Your task to perform on an android device: find snoozed emails in the gmail app Image 0: 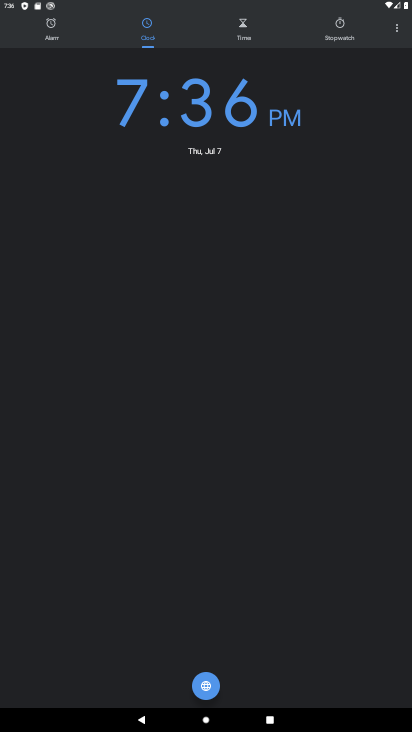
Step 0: press home button
Your task to perform on an android device: find snoozed emails in the gmail app Image 1: 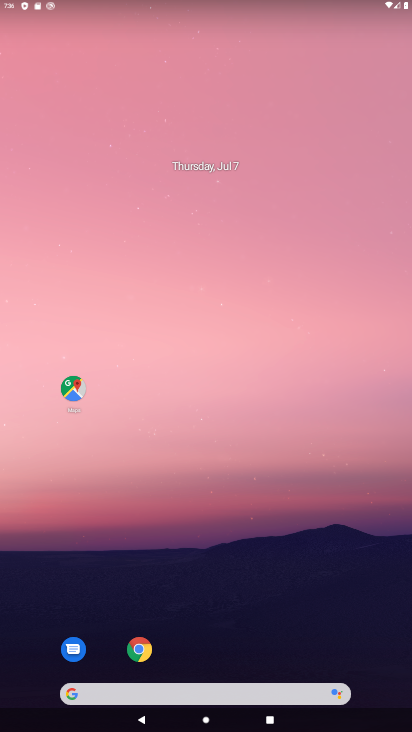
Step 1: drag from (218, 661) to (270, 126)
Your task to perform on an android device: find snoozed emails in the gmail app Image 2: 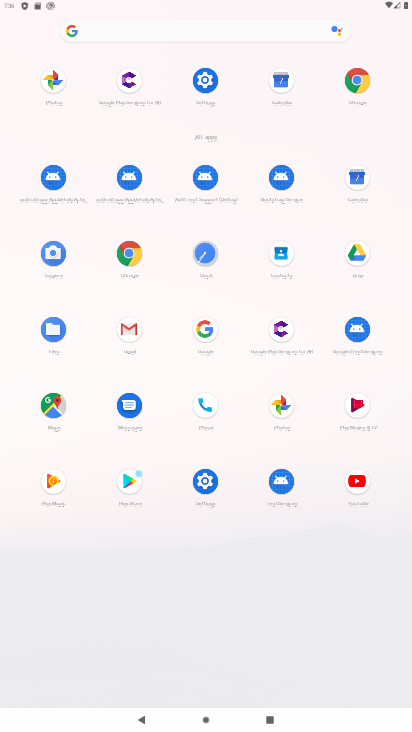
Step 2: click (125, 326)
Your task to perform on an android device: find snoozed emails in the gmail app Image 3: 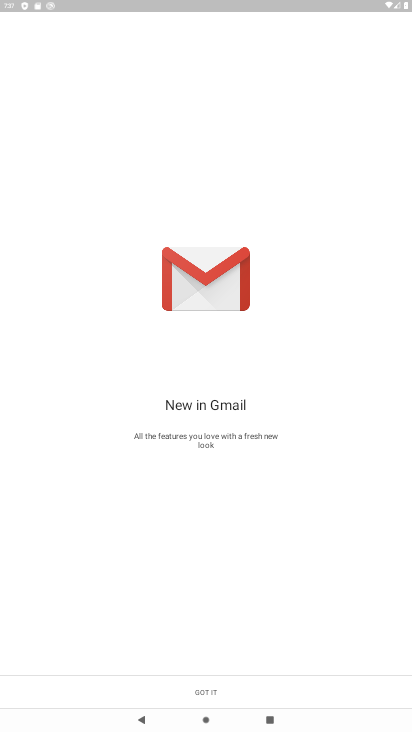
Step 3: click (203, 685)
Your task to perform on an android device: find snoozed emails in the gmail app Image 4: 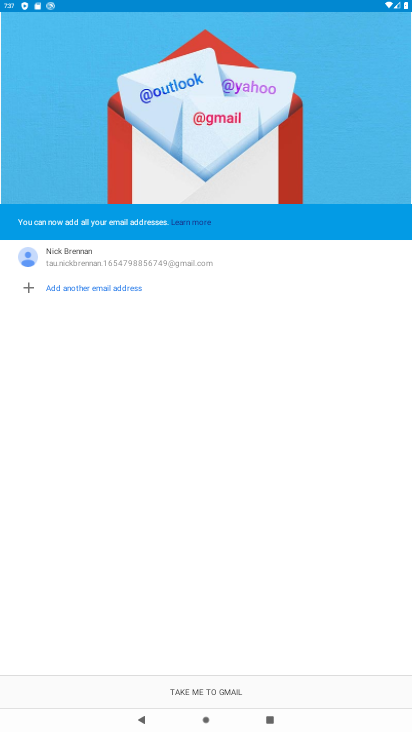
Step 4: click (203, 685)
Your task to perform on an android device: find snoozed emails in the gmail app Image 5: 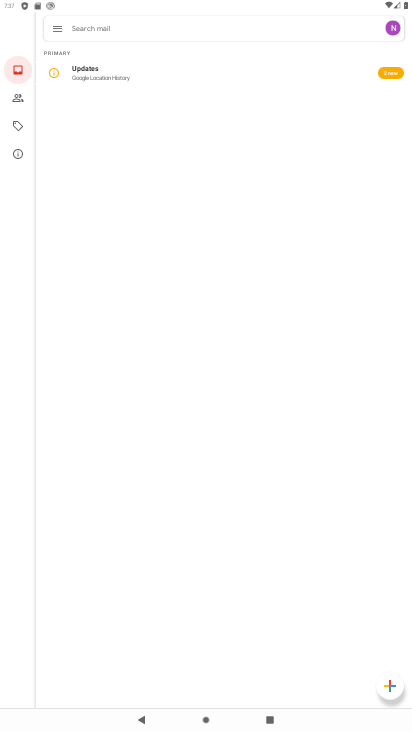
Step 5: click (55, 25)
Your task to perform on an android device: find snoozed emails in the gmail app Image 6: 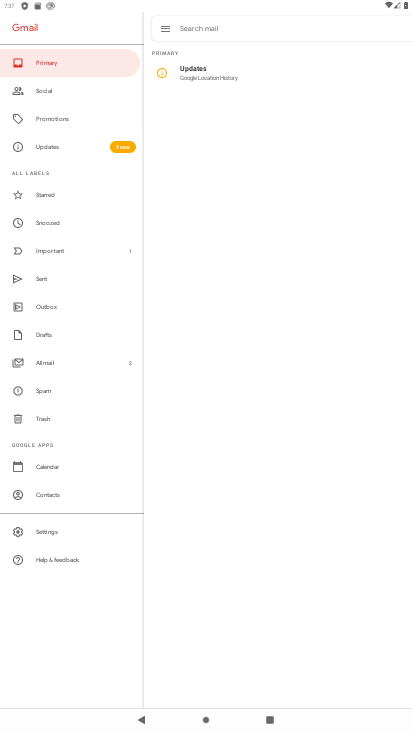
Step 6: click (61, 222)
Your task to perform on an android device: find snoozed emails in the gmail app Image 7: 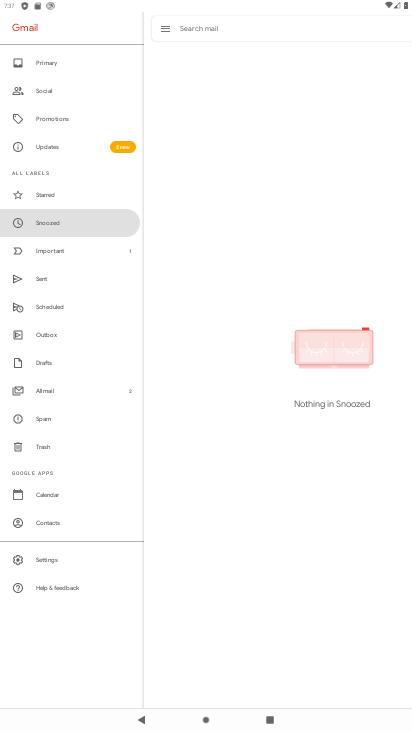
Step 7: task complete